Your task to perform on an android device: turn on improve location accuracy Image 0: 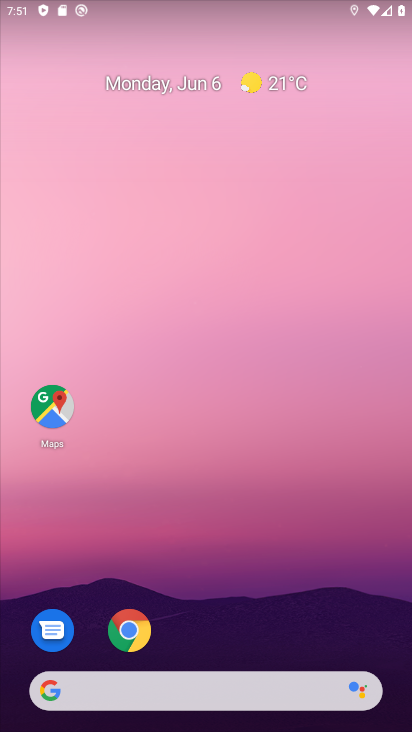
Step 0: drag from (242, 606) to (126, 101)
Your task to perform on an android device: turn on improve location accuracy Image 1: 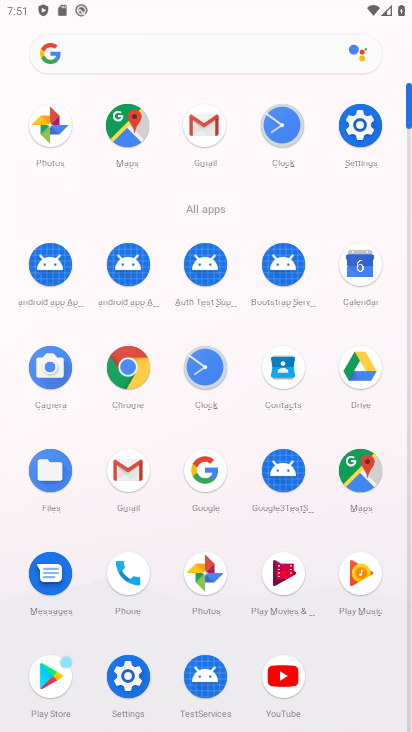
Step 1: click (359, 125)
Your task to perform on an android device: turn on improve location accuracy Image 2: 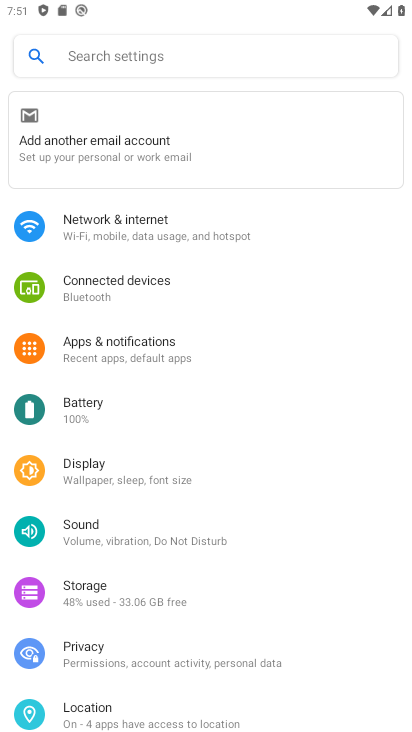
Step 2: click (103, 715)
Your task to perform on an android device: turn on improve location accuracy Image 3: 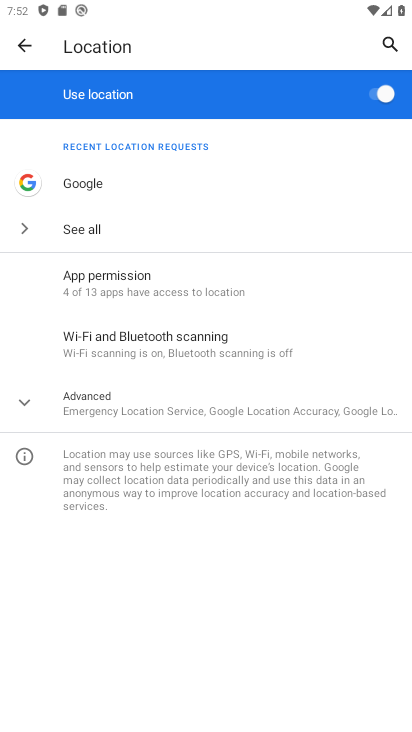
Step 3: click (223, 412)
Your task to perform on an android device: turn on improve location accuracy Image 4: 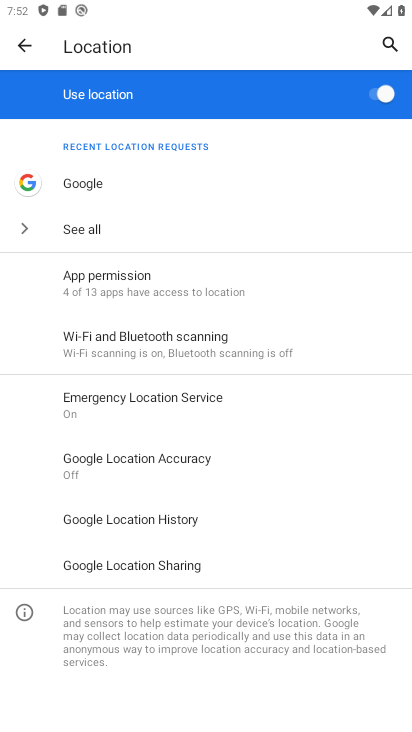
Step 4: click (191, 463)
Your task to perform on an android device: turn on improve location accuracy Image 5: 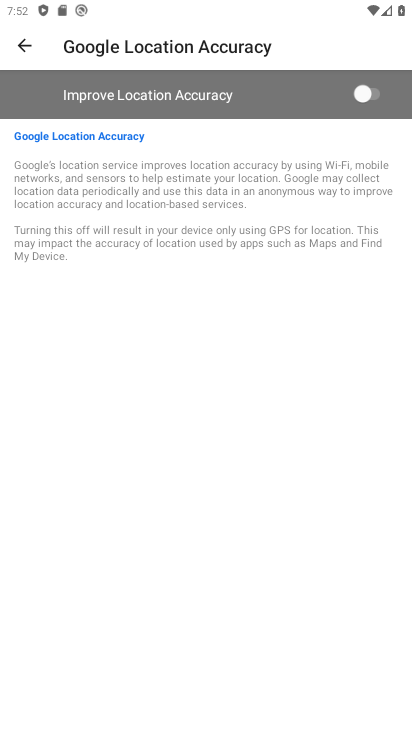
Step 5: click (362, 98)
Your task to perform on an android device: turn on improve location accuracy Image 6: 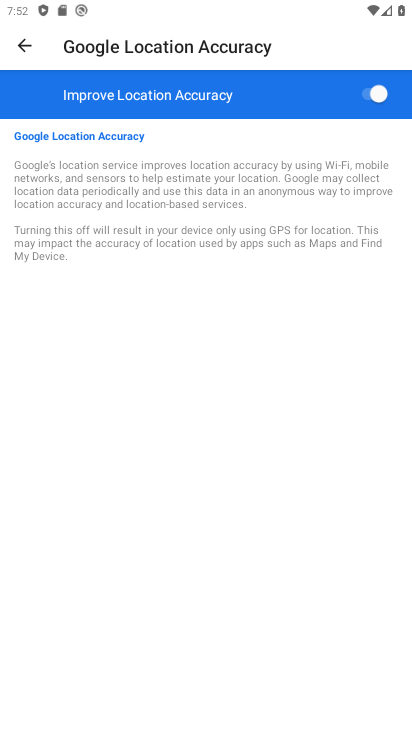
Step 6: task complete